Your task to perform on an android device: How much does a3 bedroom apartment rent for in Portland? Image 0: 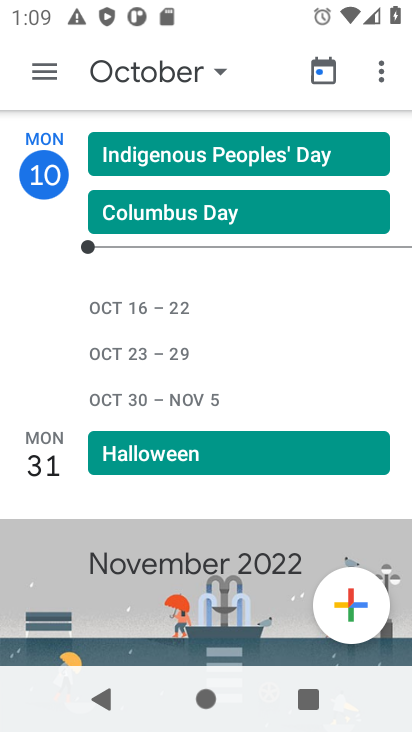
Step 0: press home button
Your task to perform on an android device: How much does a3 bedroom apartment rent for in Portland? Image 1: 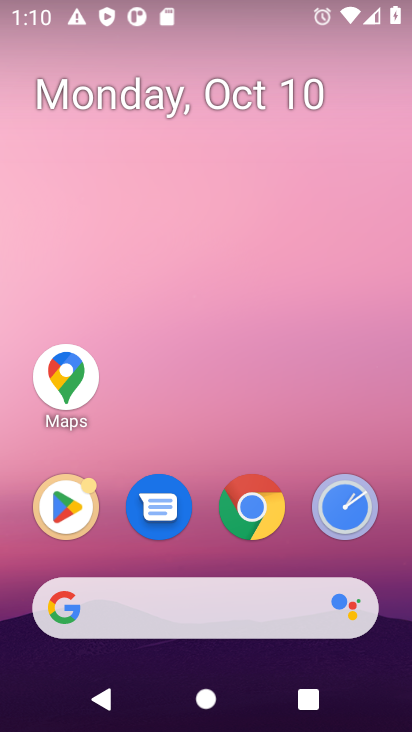
Step 1: click (258, 616)
Your task to perform on an android device: How much does a3 bedroom apartment rent for in Portland? Image 2: 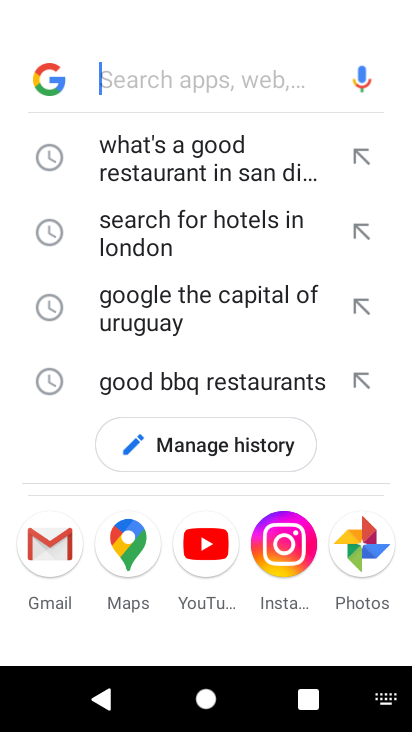
Step 2: type "3 bedroom apartment rent for in Portland"
Your task to perform on an android device: How much does a3 bedroom apartment rent for in Portland? Image 3: 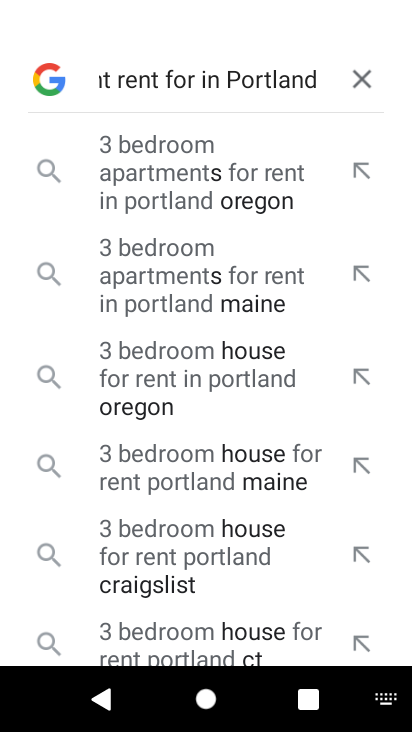
Step 3: press enter
Your task to perform on an android device: How much does a3 bedroom apartment rent for in Portland? Image 4: 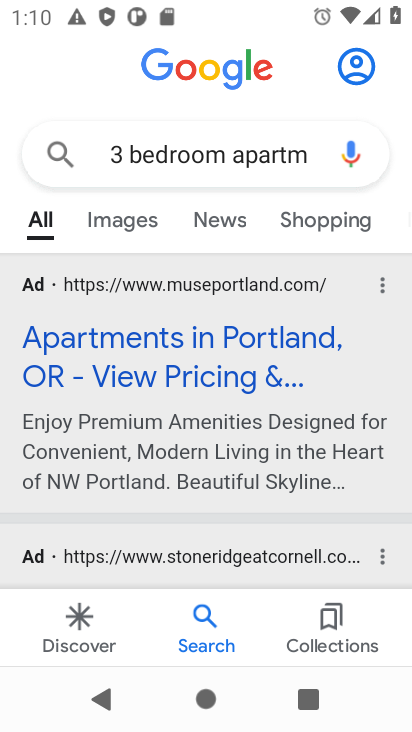
Step 4: drag from (268, 496) to (298, 349)
Your task to perform on an android device: How much does a3 bedroom apartment rent for in Portland? Image 5: 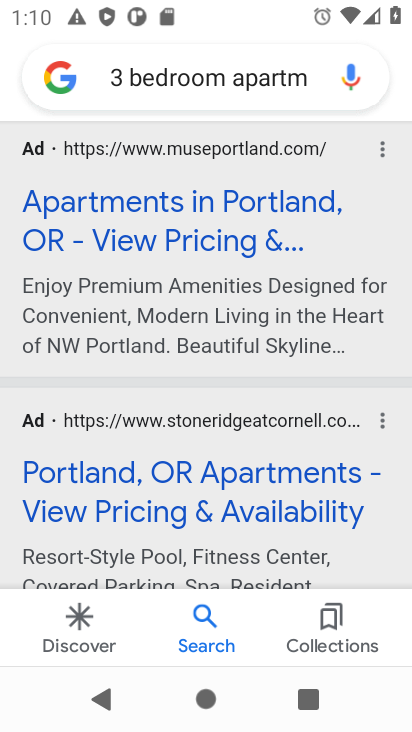
Step 5: click (210, 216)
Your task to perform on an android device: How much does a3 bedroom apartment rent for in Portland? Image 6: 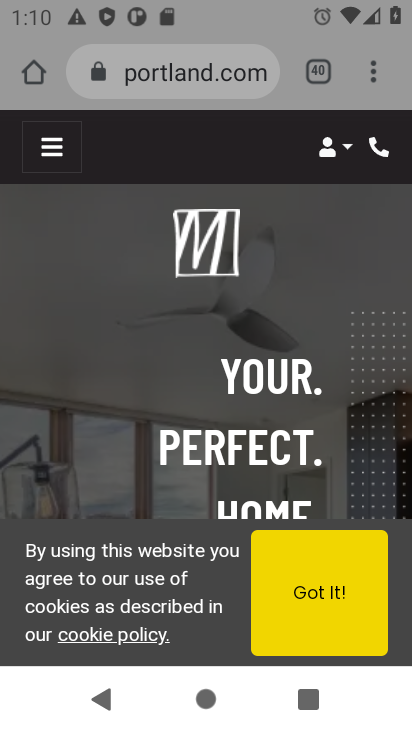
Step 6: click (316, 597)
Your task to perform on an android device: How much does a3 bedroom apartment rent for in Portland? Image 7: 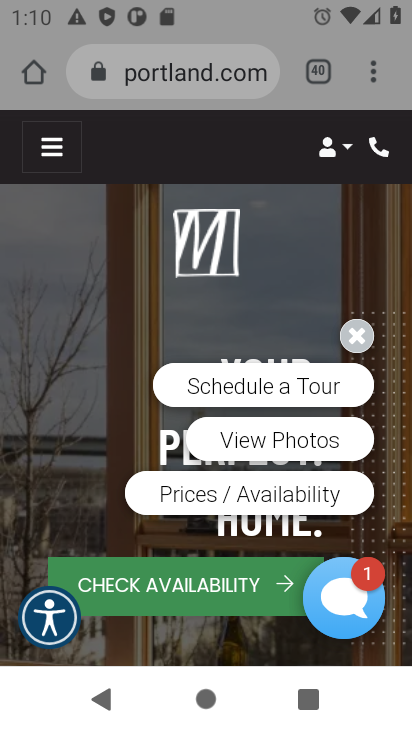
Step 7: click (363, 333)
Your task to perform on an android device: How much does a3 bedroom apartment rent for in Portland? Image 8: 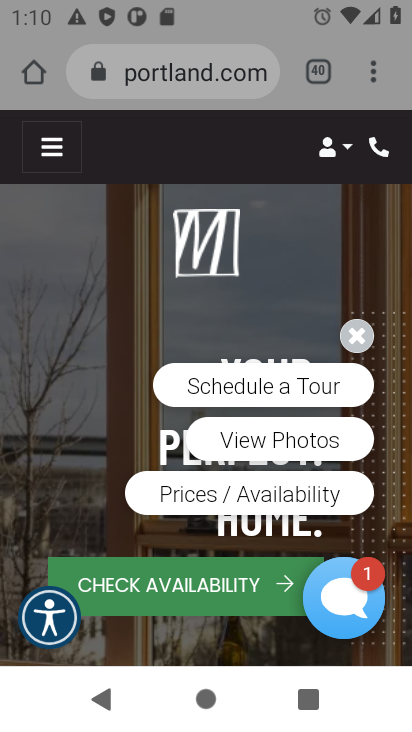
Step 8: task complete